Your task to perform on an android device: Go to notification settings Image 0: 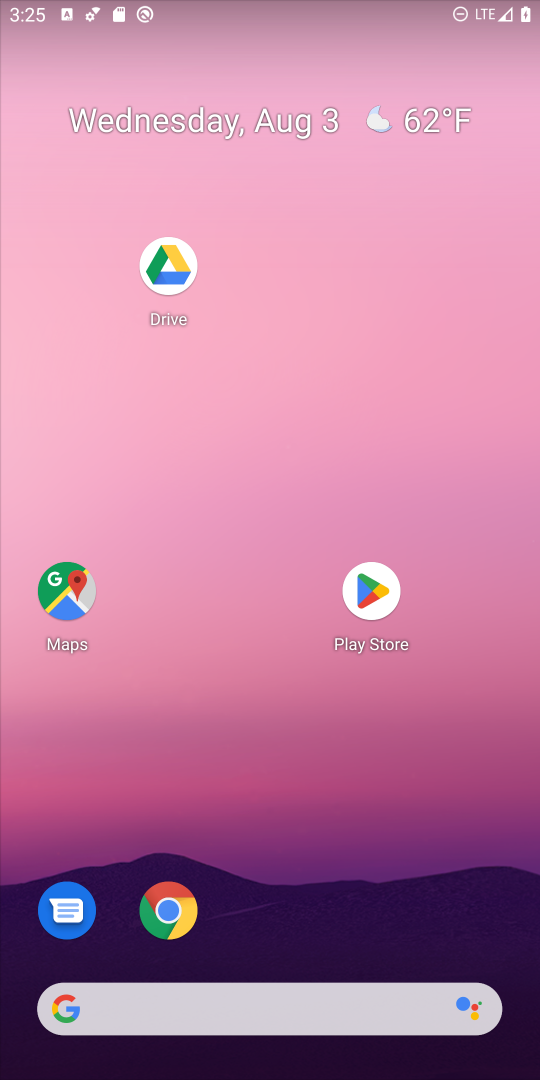
Step 0: drag from (315, 891) to (340, 0)
Your task to perform on an android device: Go to notification settings Image 1: 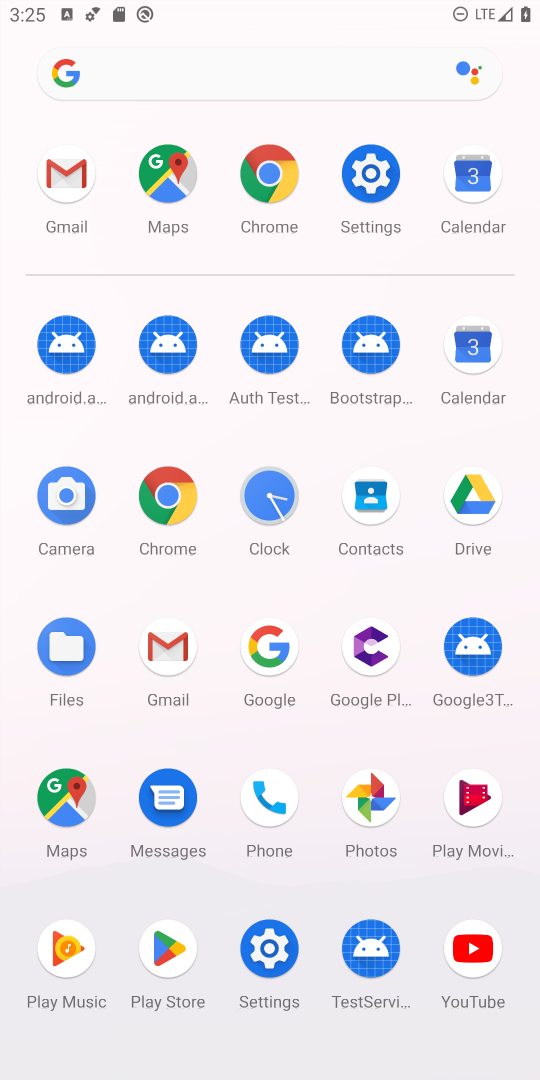
Step 1: click (368, 163)
Your task to perform on an android device: Go to notification settings Image 2: 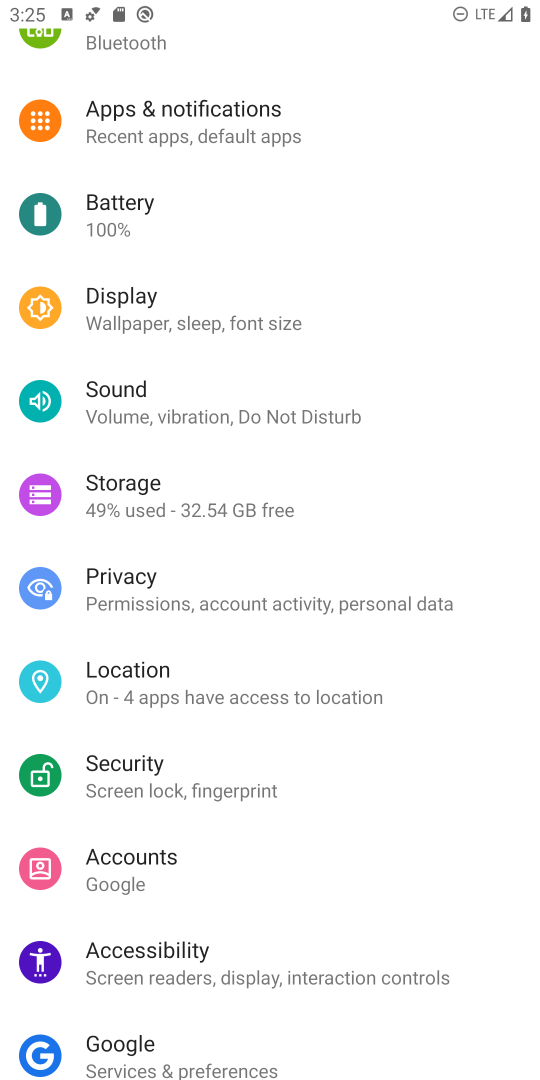
Step 2: click (203, 127)
Your task to perform on an android device: Go to notification settings Image 3: 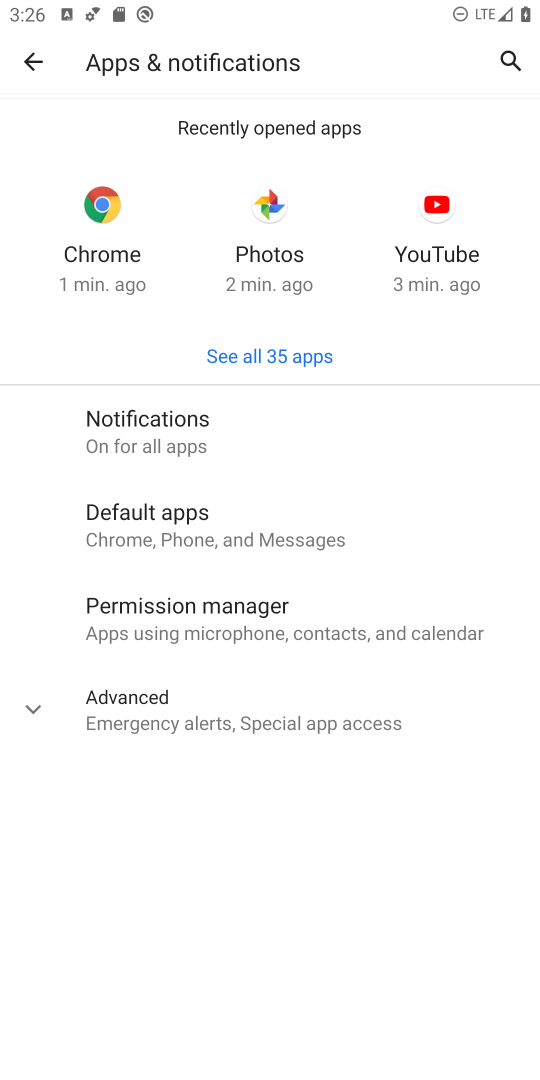
Step 3: task complete